Your task to perform on an android device: Search for pizza restaurants on Maps Image 0: 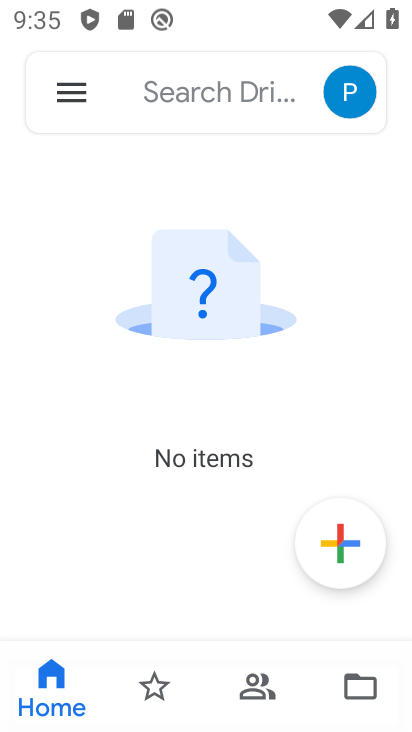
Step 0: press back button
Your task to perform on an android device: Search for pizza restaurants on Maps Image 1: 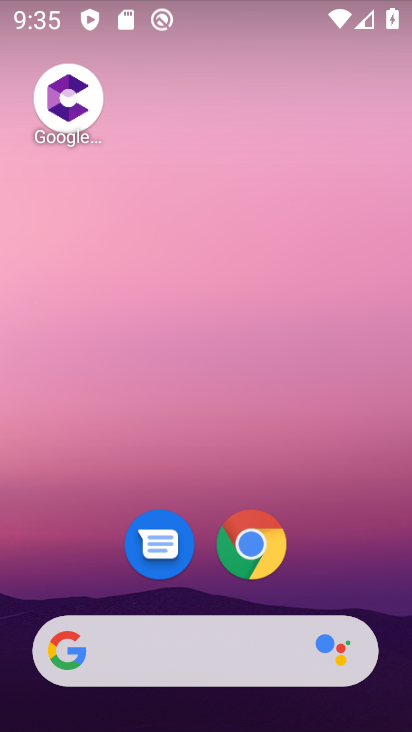
Step 1: drag from (222, 601) to (279, 632)
Your task to perform on an android device: Search for pizza restaurants on Maps Image 2: 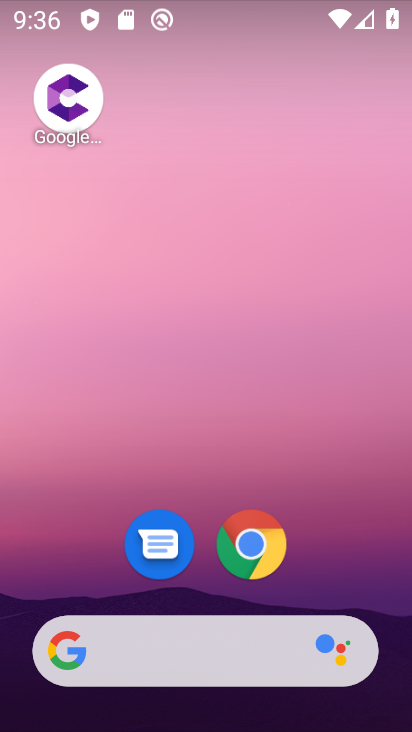
Step 2: drag from (268, 616) to (387, 21)
Your task to perform on an android device: Search for pizza restaurants on Maps Image 3: 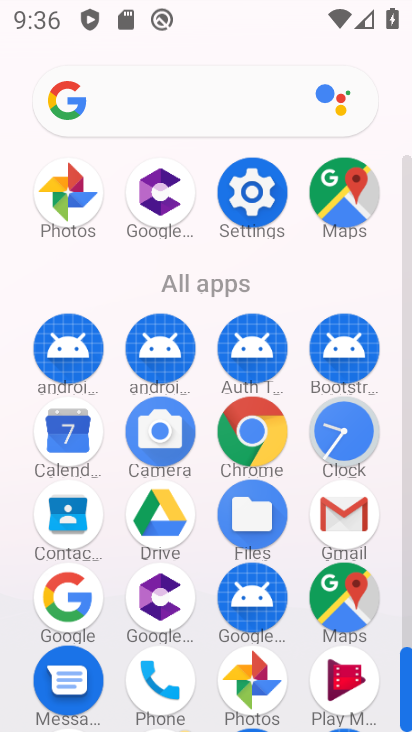
Step 3: click (338, 606)
Your task to perform on an android device: Search for pizza restaurants on Maps Image 4: 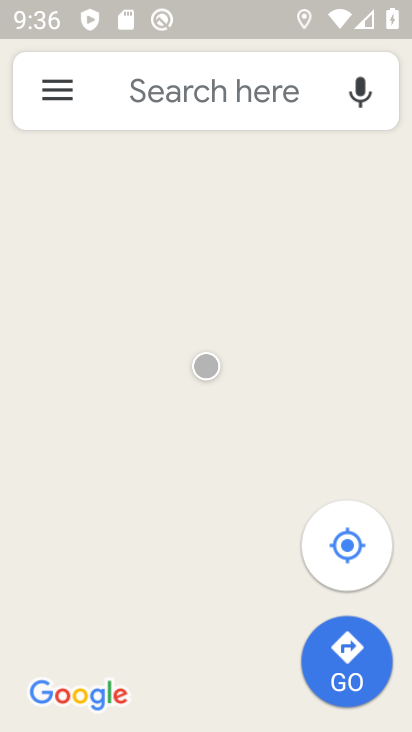
Step 4: click (198, 74)
Your task to perform on an android device: Search for pizza restaurants on Maps Image 5: 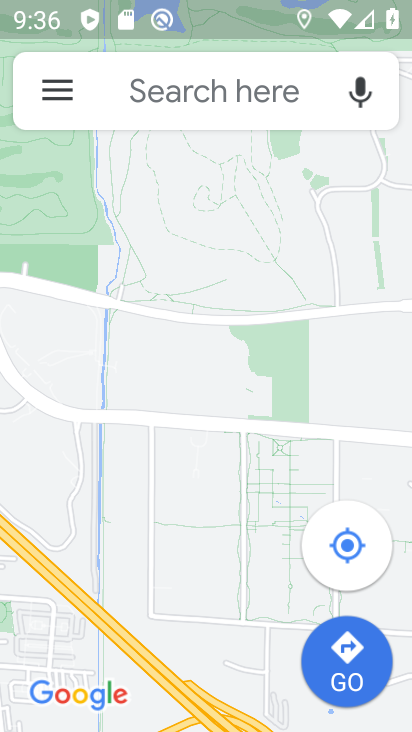
Step 5: click (207, 91)
Your task to perform on an android device: Search for pizza restaurants on Maps Image 6: 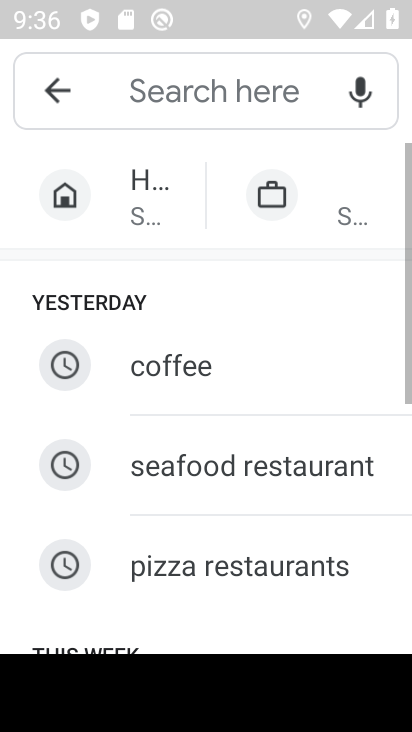
Step 6: click (157, 554)
Your task to perform on an android device: Search for pizza restaurants on Maps Image 7: 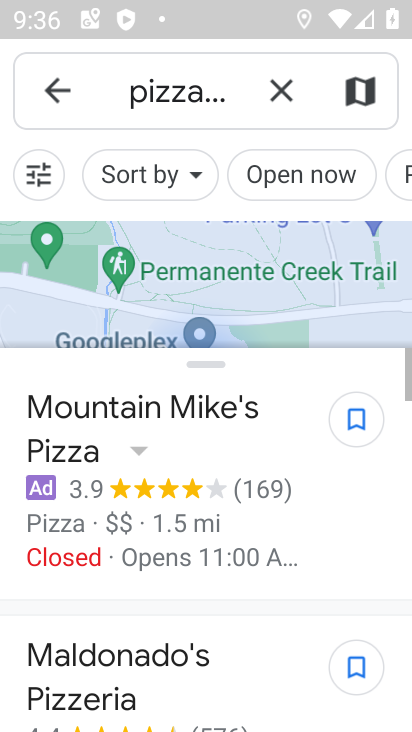
Step 7: task complete